Your task to perform on an android device: What's on Reddit Image 0: 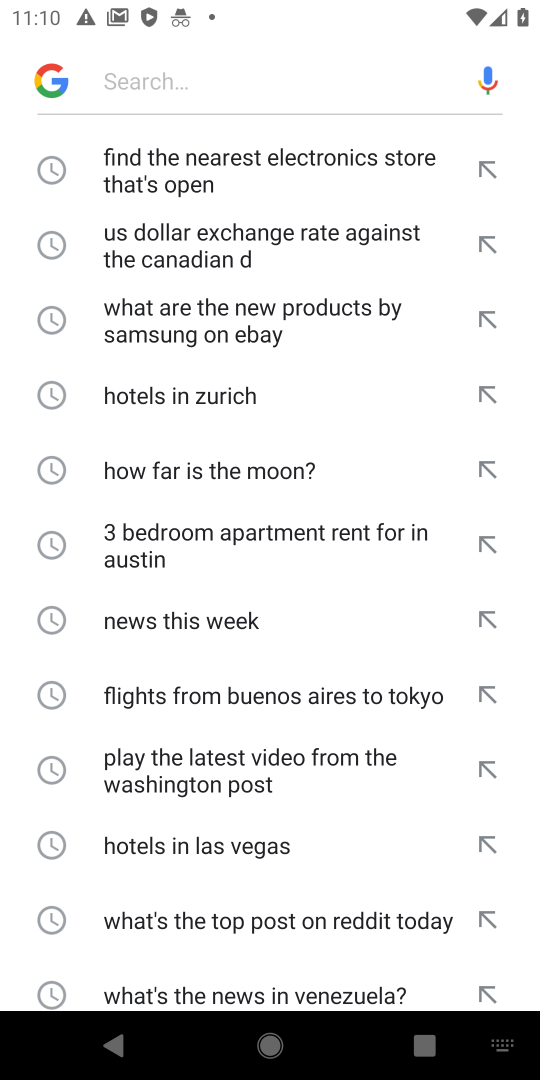
Step 0: press home button
Your task to perform on an android device: What's on Reddit Image 1: 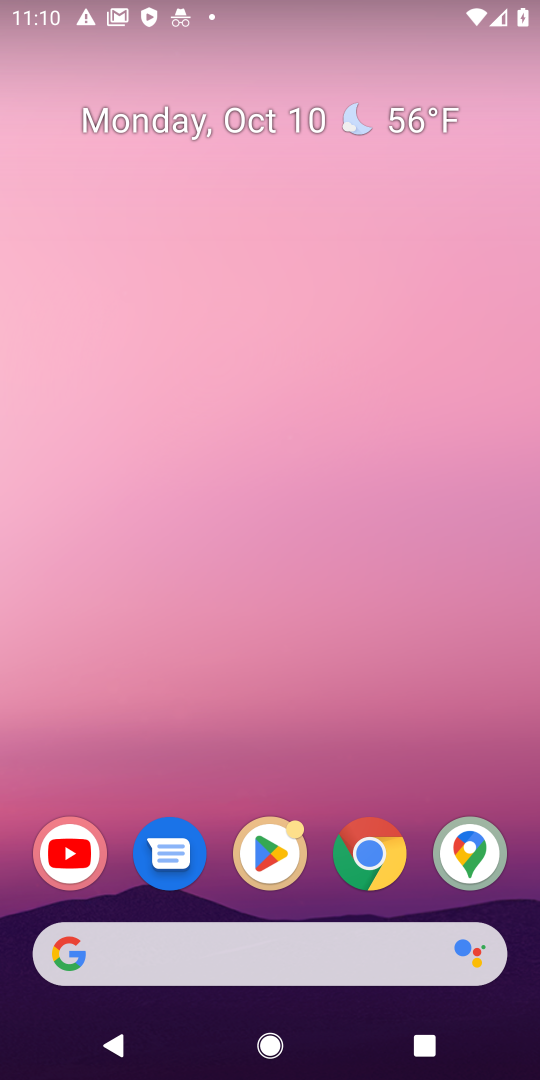
Step 1: click (257, 963)
Your task to perform on an android device: What's on Reddit Image 2: 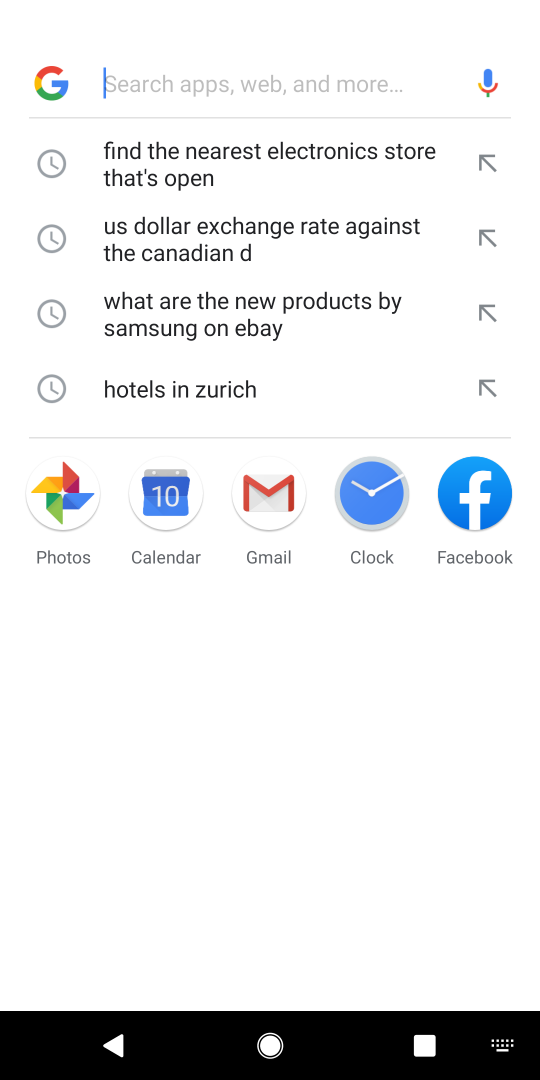
Step 2: type "What's on Reddit"
Your task to perform on an android device: What's on Reddit Image 3: 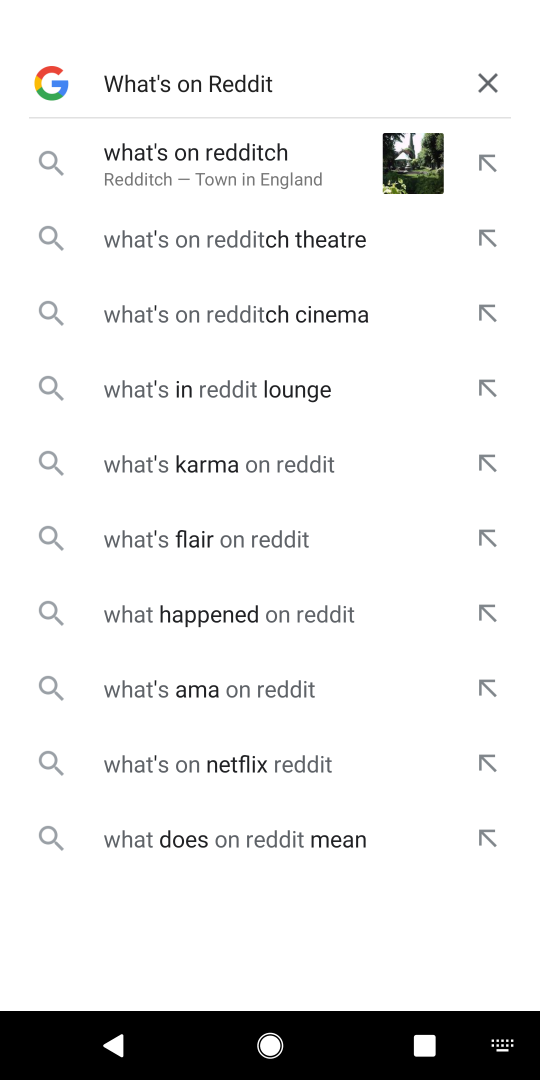
Step 3: press enter
Your task to perform on an android device: What's on Reddit Image 4: 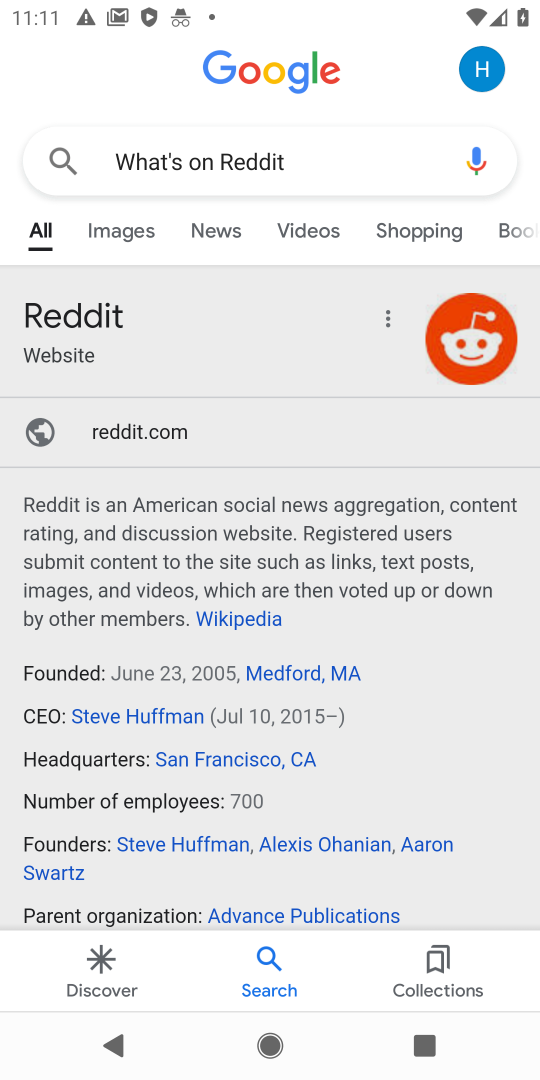
Step 4: task complete